Your task to perform on an android device: Do I have any events tomorrow? Image 0: 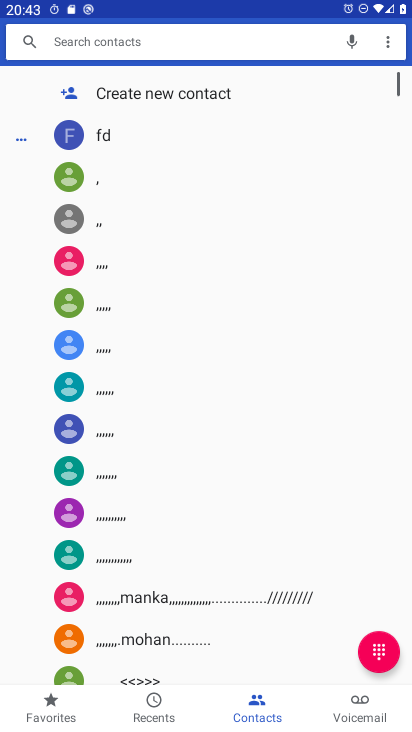
Step 0: press home button
Your task to perform on an android device: Do I have any events tomorrow? Image 1: 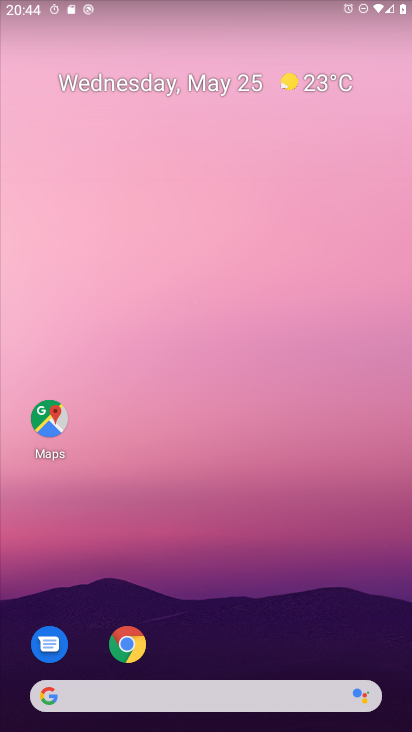
Step 1: drag from (226, 711) to (191, 185)
Your task to perform on an android device: Do I have any events tomorrow? Image 2: 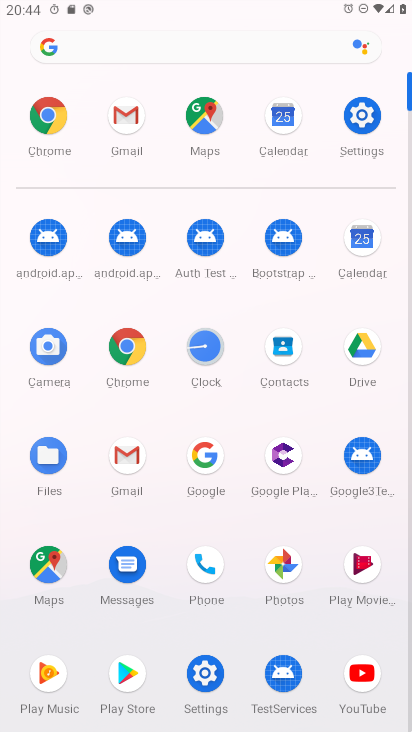
Step 2: click (365, 242)
Your task to perform on an android device: Do I have any events tomorrow? Image 3: 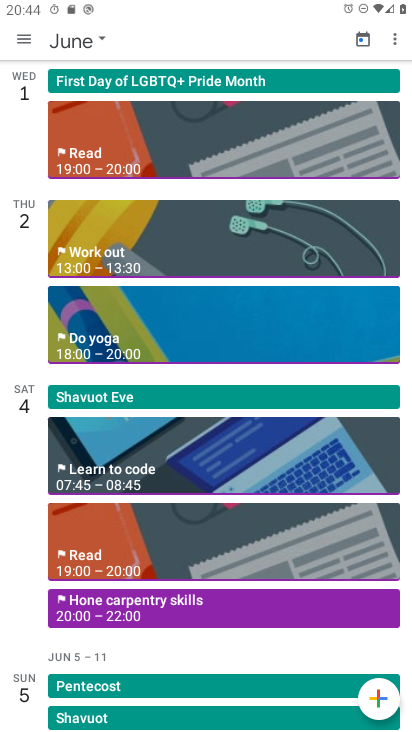
Step 3: click (24, 31)
Your task to perform on an android device: Do I have any events tomorrow? Image 4: 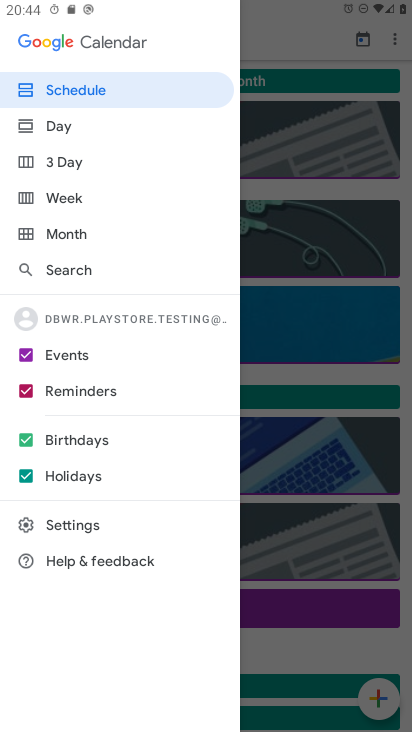
Step 4: click (55, 233)
Your task to perform on an android device: Do I have any events tomorrow? Image 5: 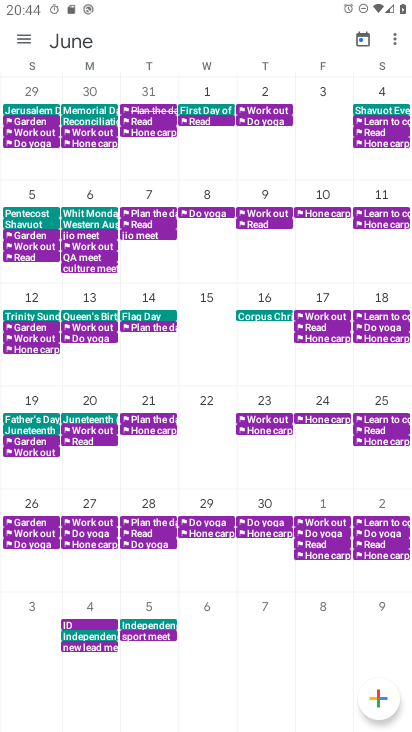
Step 5: drag from (35, 408) to (409, 268)
Your task to perform on an android device: Do I have any events tomorrow? Image 6: 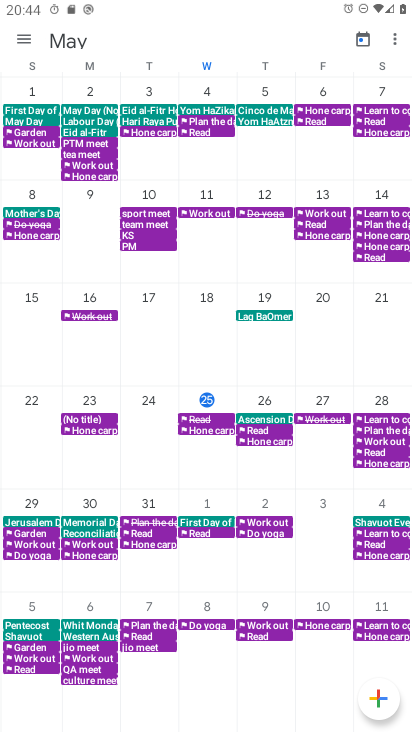
Step 6: click (22, 47)
Your task to perform on an android device: Do I have any events tomorrow? Image 7: 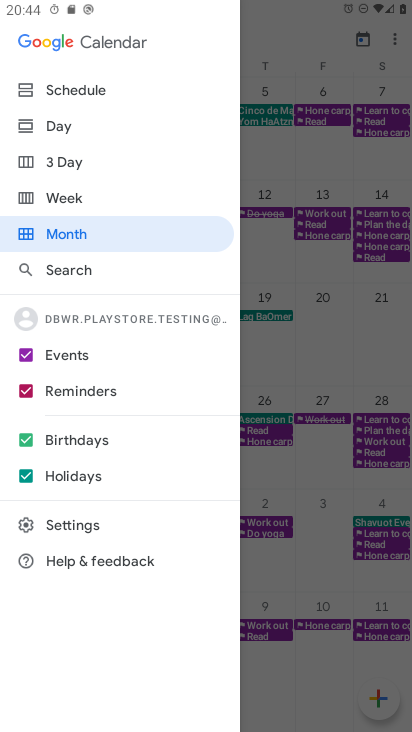
Step 7: click (91, 100)
Your task to perform on an android device: Do I have any events tomorrow? Image 8: 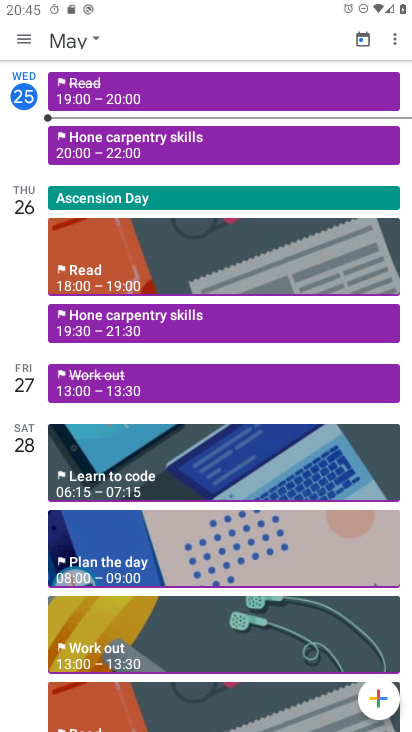
Step 8: task complete